Your task to perform on an android device: Go to accessibility settings Image 0: 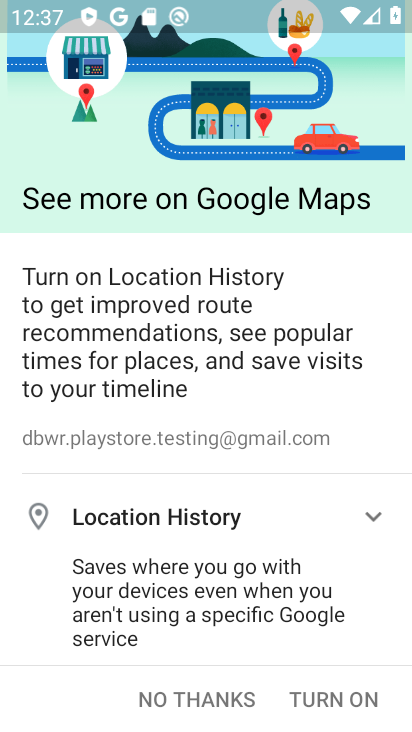
Step 0: click (339, 701)
Your task to perform on an android device: Go to accessibility settings Image 1: 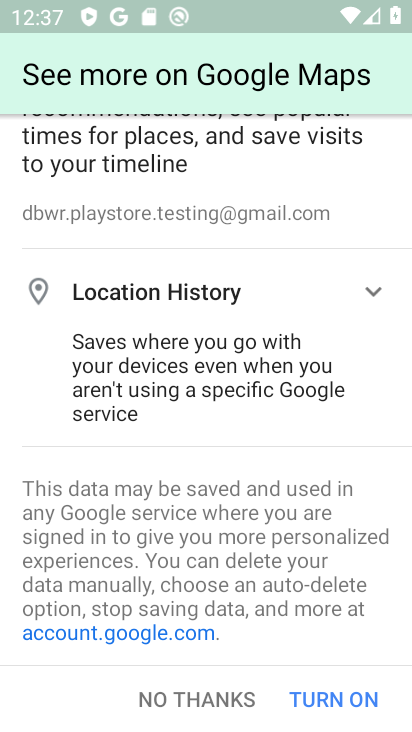
Step 1: press back button
Your task to perform on an android device: Go to accessibility settings Image 2: 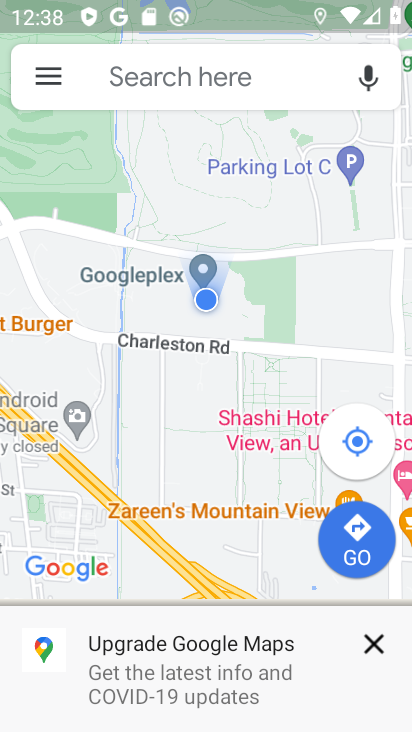
Step 2: press home button
Your task to perform on an android device: Go to accessibility settings Image 3: 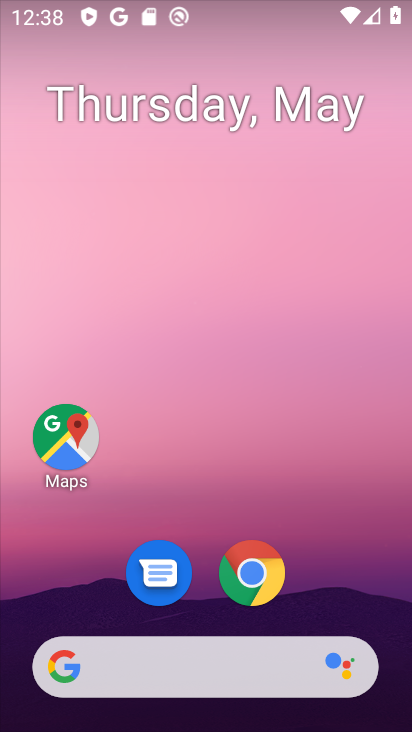
Step 3: drag from (298, 556) to (228, 65)
Your task to perform on an android device: Go to accessibility settings Image 4: 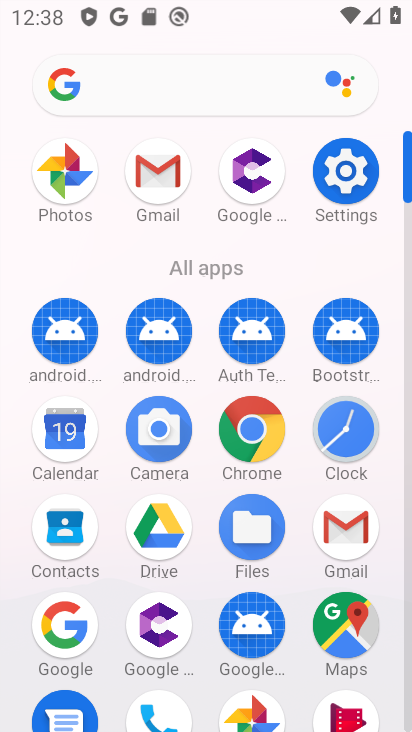
Step 4: drag from (22, 575) to (33, 185)
Your task to perform on an android device: Go to accessibility settings Image 5: 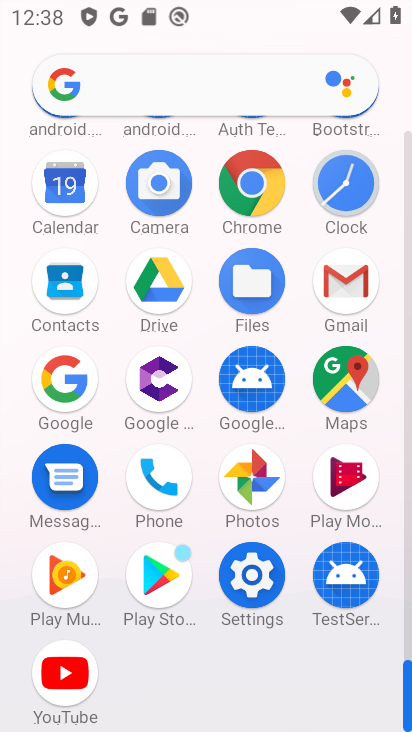
Step 5: click (254, 571)
Your task to perform on an android device: Go to accessibility settings Image 6: 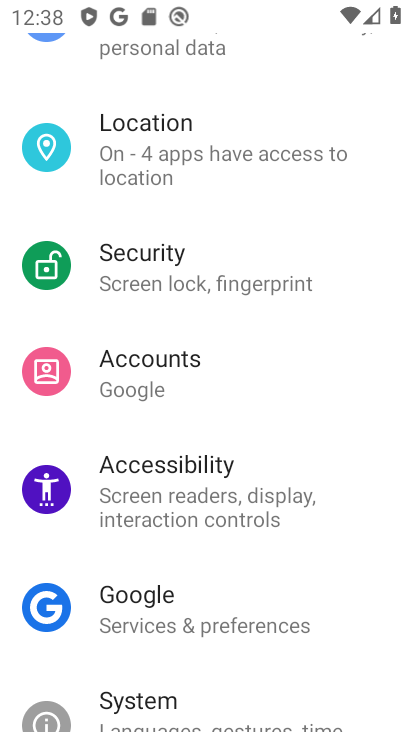
Step 6: drag from (327, 600) to (301, 85)
Your task to perform on an android device: Go to accessibility settings Image 7: 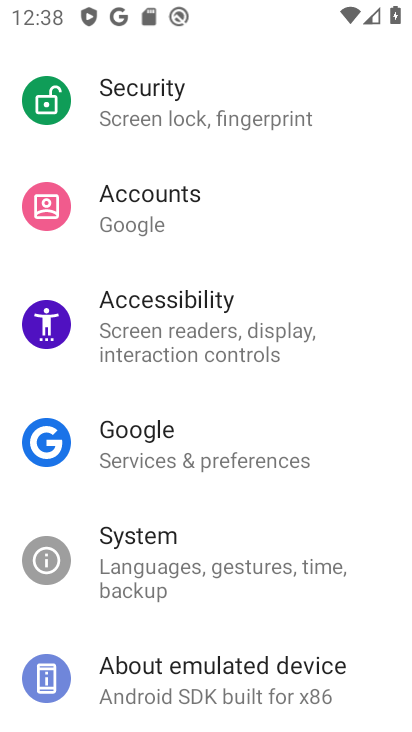
Step 7: click (206, 308)
Your task to perform on an android device: Go to accessibility settings Image 8: 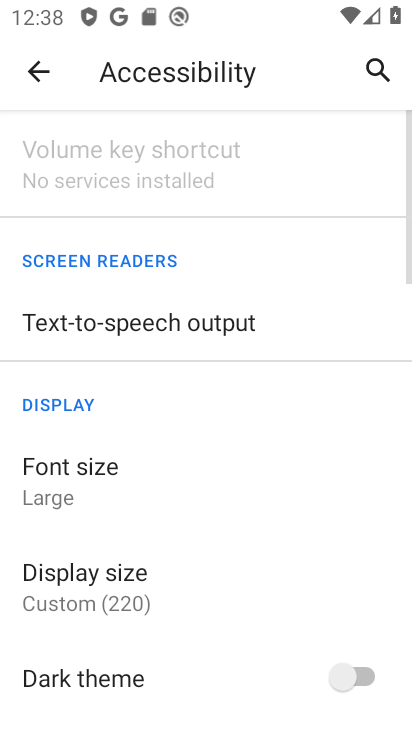
Step 8: task complete